Your task to perform on an android device: Open Yahoo.com Image 0: 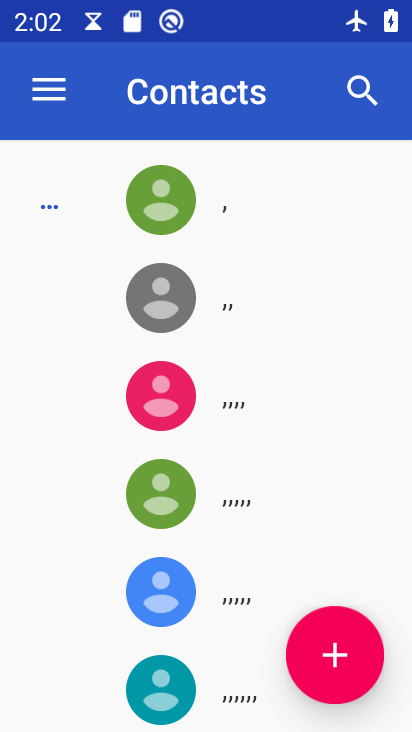
Step 0: press home button
Your task to perform on an android device: Open Yahoo.com Image 1: 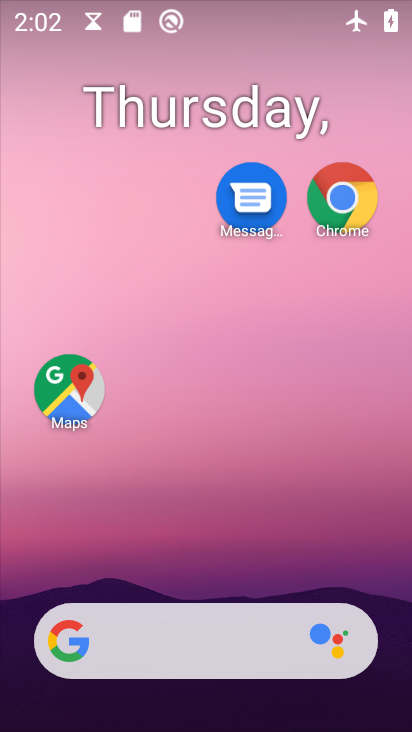
Step 1: click (341, 208)
Your task to perform on an android device: Open Yahoo.com Image 2: 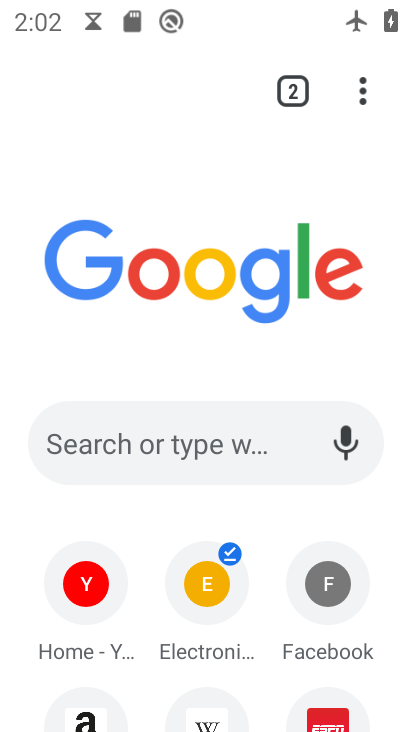
Step 2: drag from (260, 590) to (311, 327)
Your task to perform on an android device: Open Yahoo.com Image 3: 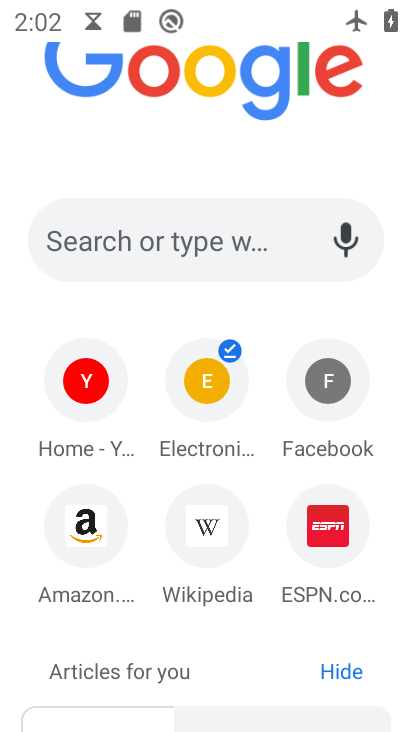
Step 3: click (220, 239)
Your task to perform on an android device: Open Yahoo.com Image 4: 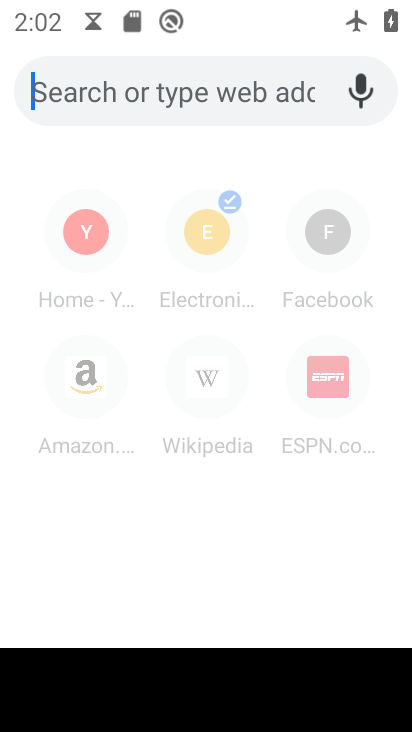
Step 4: type "www.yahoo.com"
Your task to perform on an android device: Open Yahoo.com Image 5: 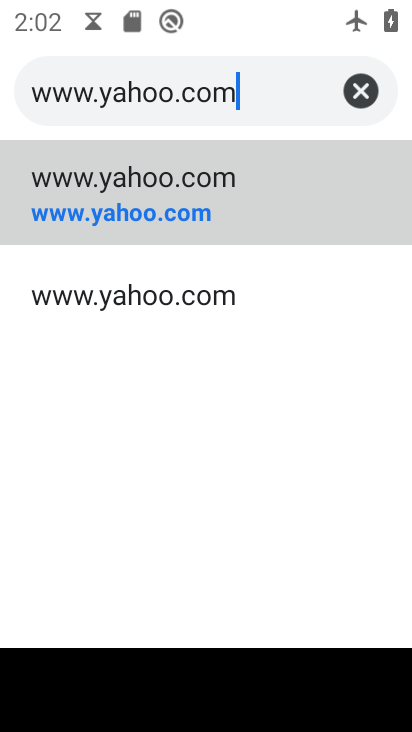
Step 5: click (118, 220)
Your task to perform on an android device: Open Yahoo.com Image 6: 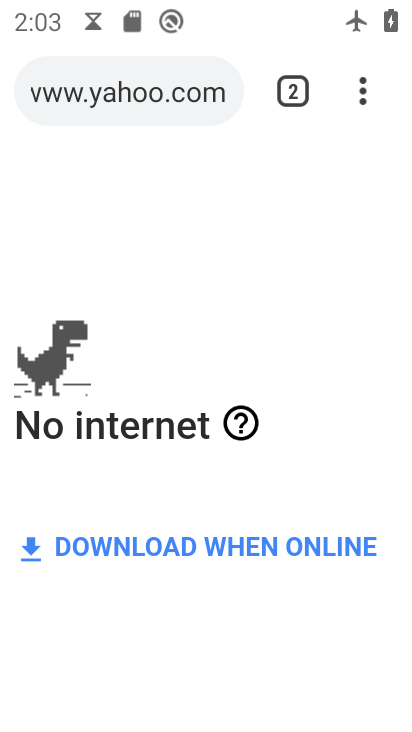
Step 6: task complete